Your task to perform on an android device: Open Chrome and go to settings Image 0: 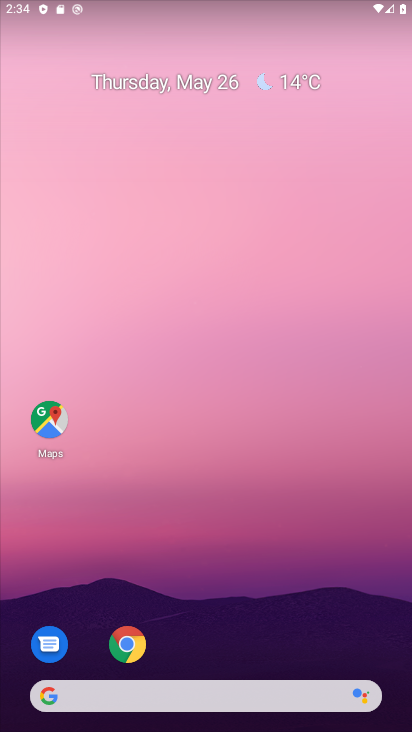
Step 0: drag from (329, 549) to (305, 141)
Your task to perform on an android device: Open Chrome and go to settings Image 1: 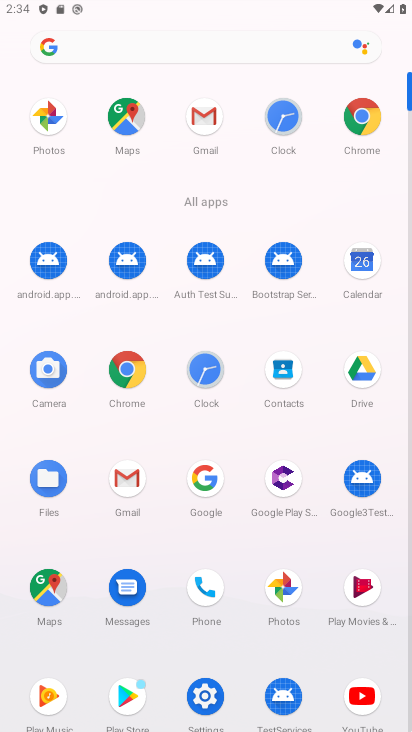
Step 1: click (152, 377)
Your task to perform on an android device: Open Chrome and go to settings Image 2: 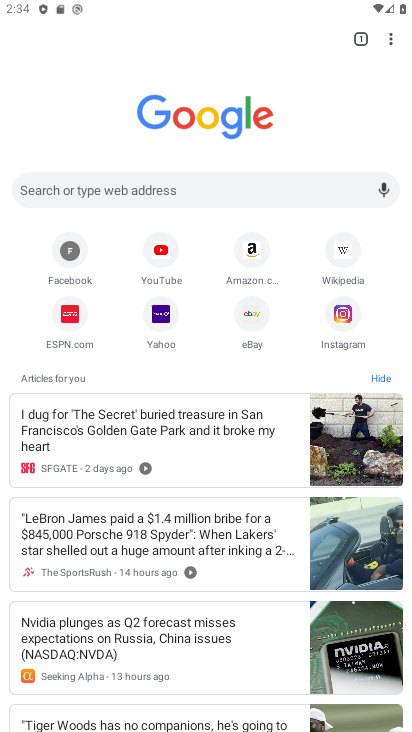
Step 2: task complete